Your task to perform on an android device: change text size in settings app Image 0: 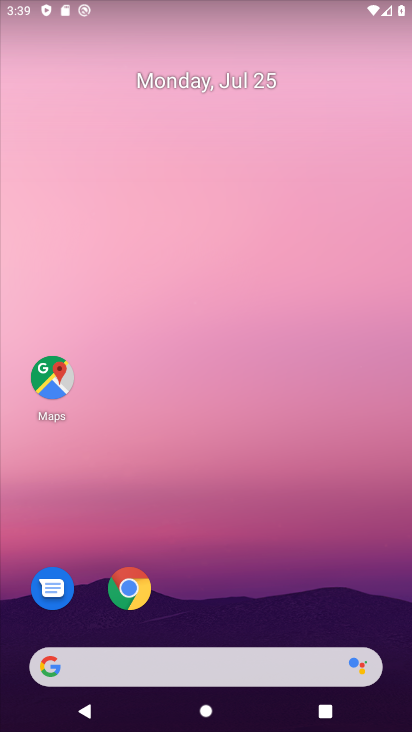
Step 0: drag from (163, 489) to (174, 52)
Your task to perform on an android device: change text size in settings app Image 1: 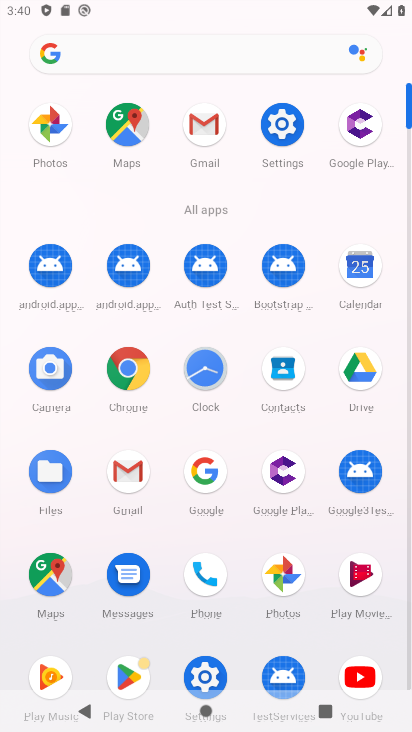
Step 1: click (215, 669)
Your task to perform on an android device: change text size in settings app Image 2: 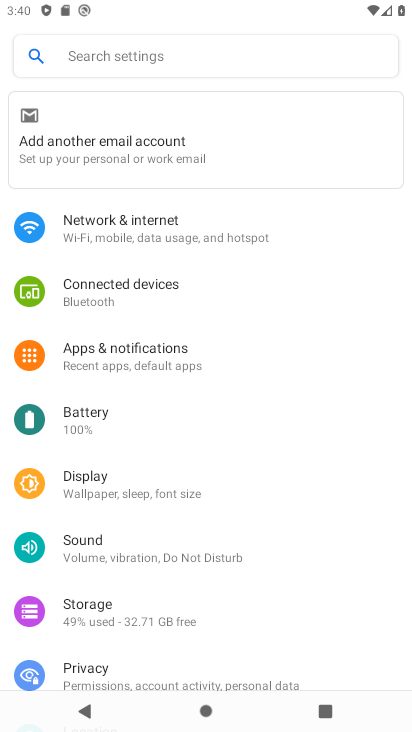
Step 2: click (85, 492)
Your task to perform on an android device: change text size in settings app Image 3: 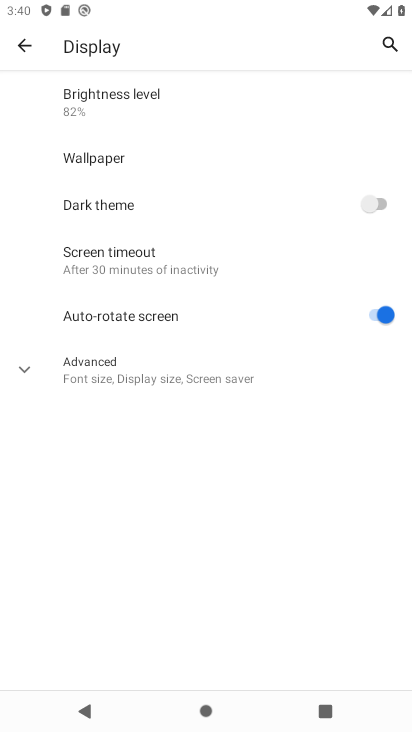
Step 3: click (85, 492)
Your task to perform on an android device: change text size in settings app Image 4: 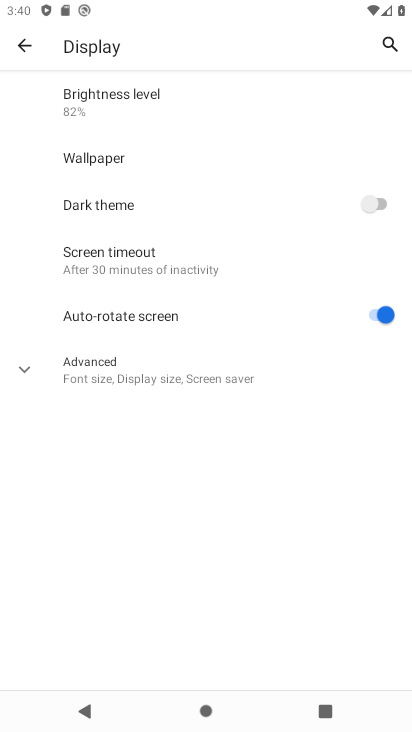
Step 4: click (109, 394)
Your task to perform on an android device: change text size in settings app Image 5: 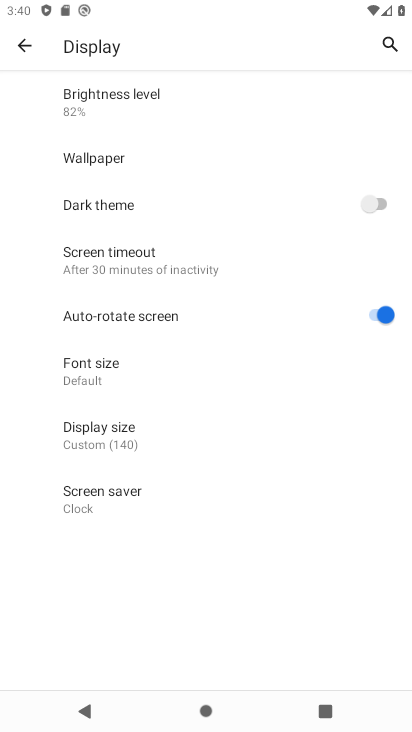
Step 5: click (109, 394)
Your task to perform on an android device: change text size in settings app Image 6: 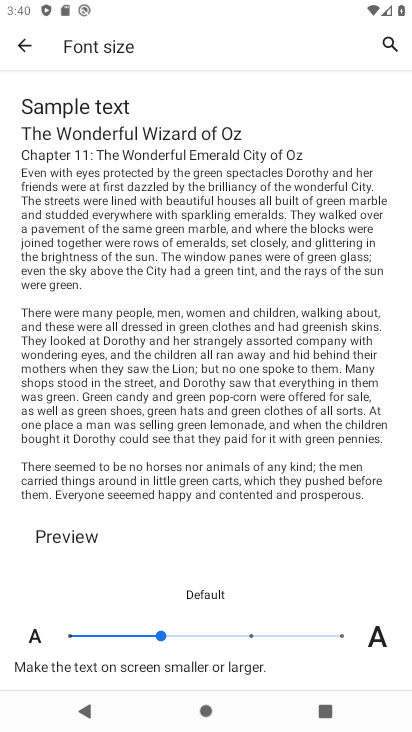
Step 6: click (65, 633)
Your task to perform on an android device: change text size in settings app Image 7: 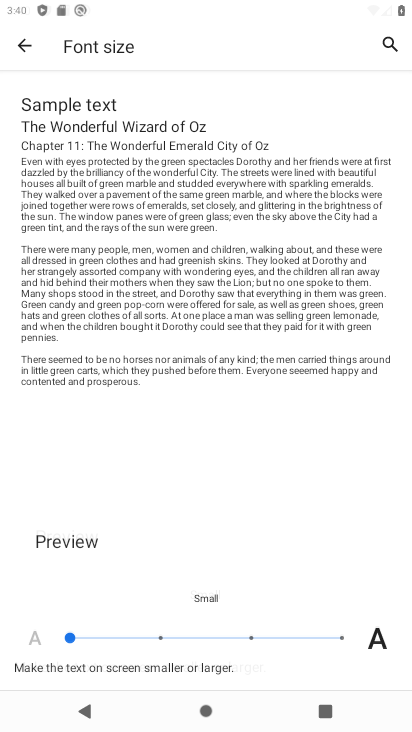
Step 7: task complete